Your task to perform on an android device: turn on sleep mode Image 0: 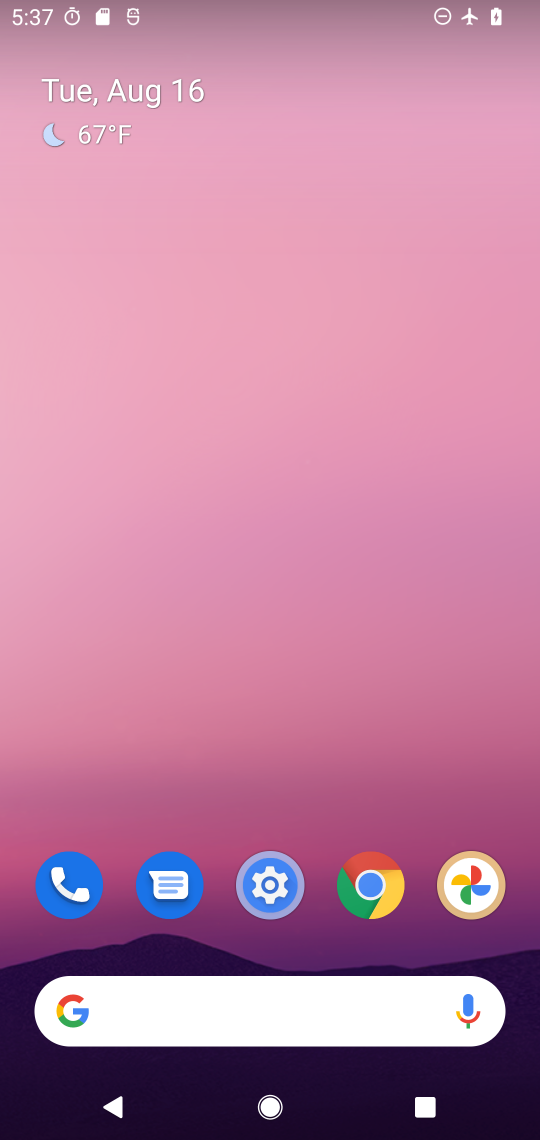
Step 0: drag from (275, 859) to (290, 313)
Your task to perform on an android device: turn on sleep mode Image 1: 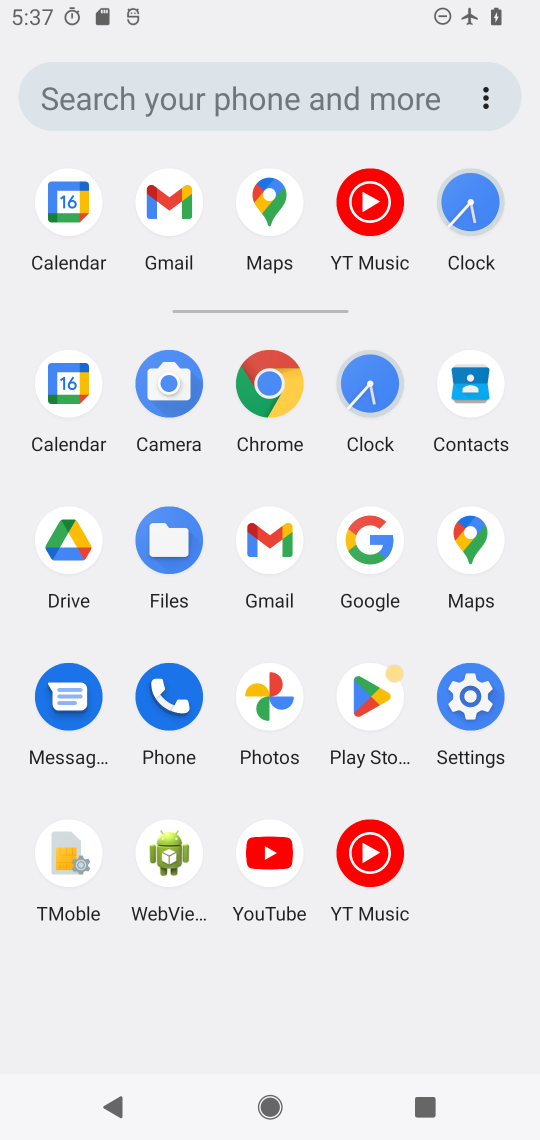
Step 1: click (484, 683)
Your task to perform on an android device: turn on sleep mode Image 2: 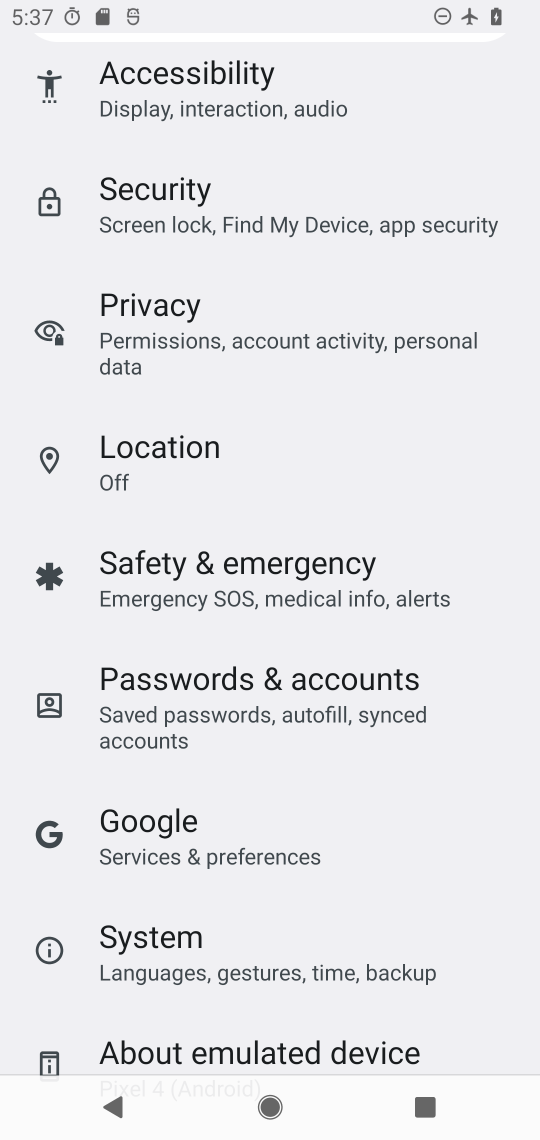
Step 2: task complete